Your task to perform on an android device: change your default location settings in chrome Image 0: 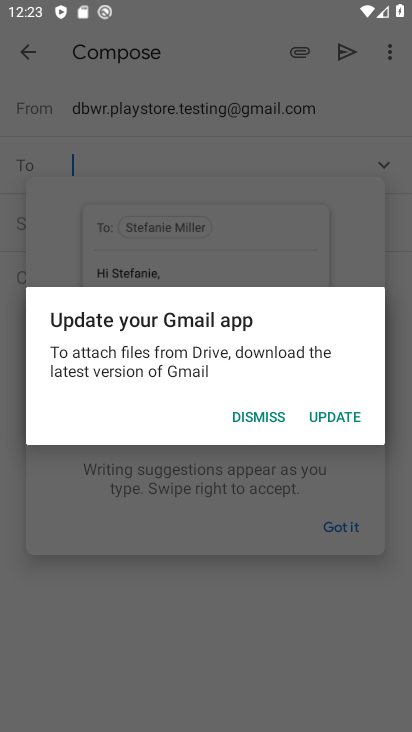
Step 0: press home button
Your task to perform on an android device: change your default location settings in chrome Image 1: 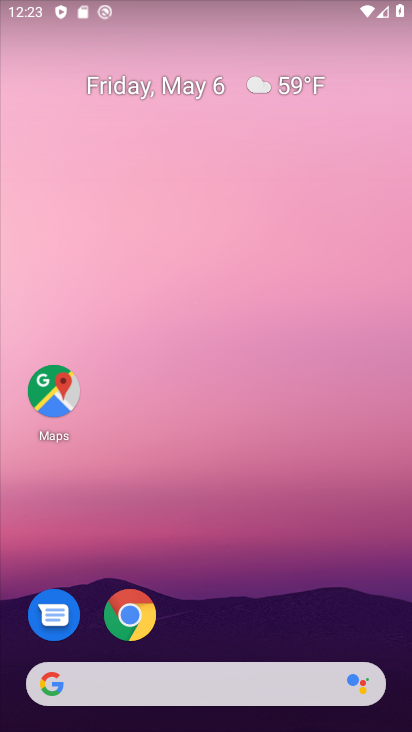
Step 1: drag from (257, 566) to (303, 31)
Your task to perform on an android device: change your default location settings in chrome Image 2: 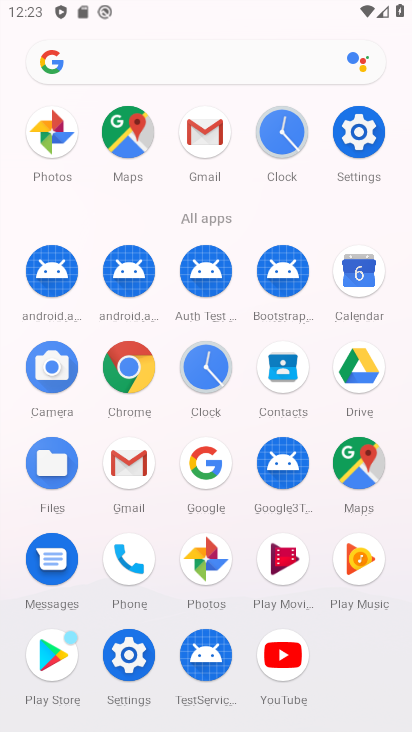
Step 2: click (145, 369)
Your task to perform on an android device: change your default location settings in chrome Image 3: 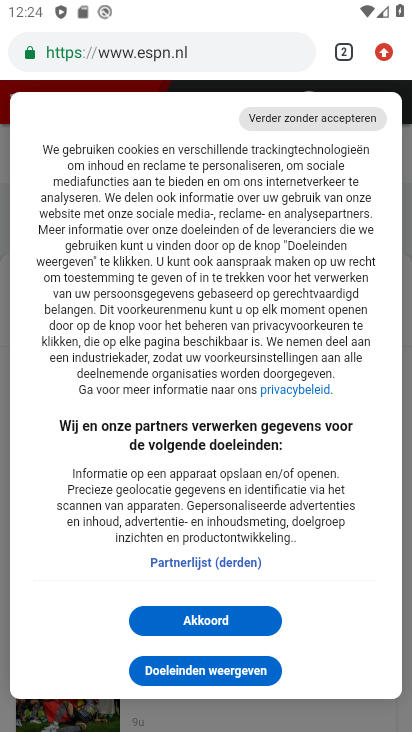
Step 3: click (239, 619)
Your task to perform on an android device: change your default location settings in chrome Image 4: 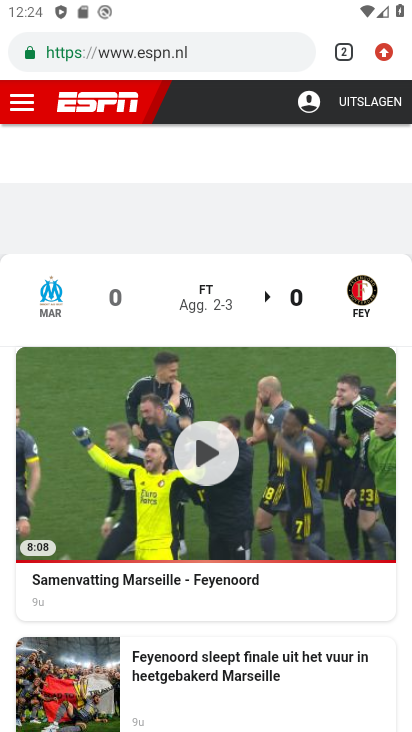
Step 4: press home button
Your task to perform on an android device: change your default location settings in chrome Image 5: 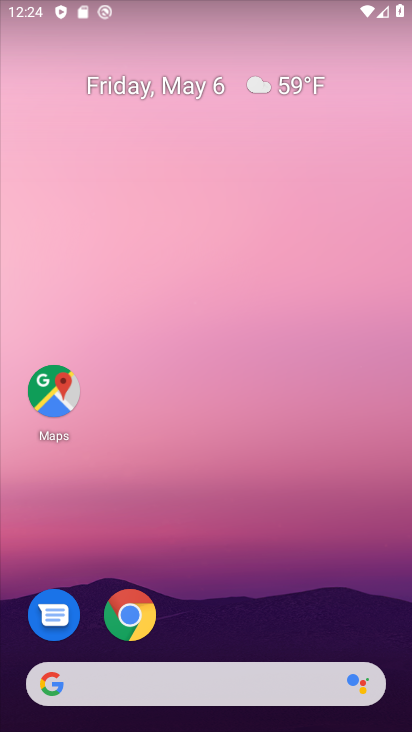
Step 5: drag from (230, 576) to (334, 44)
Your task to perform on an android device: change your default location settings in chrome Image 6: 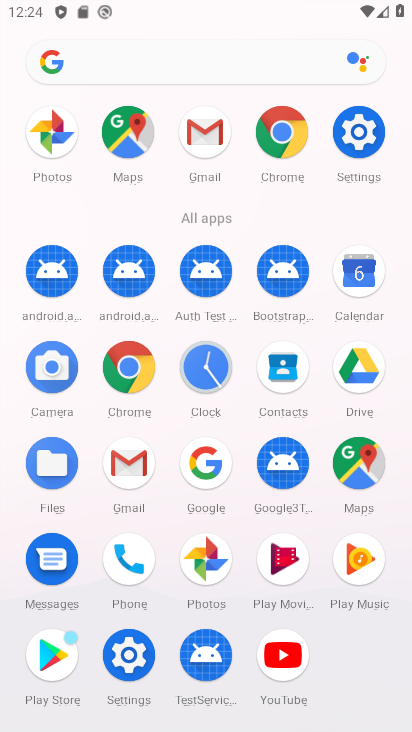
Step 6: click (289, 134)
Your task to perform on an android device: change your default location settings in chrome Image 7: 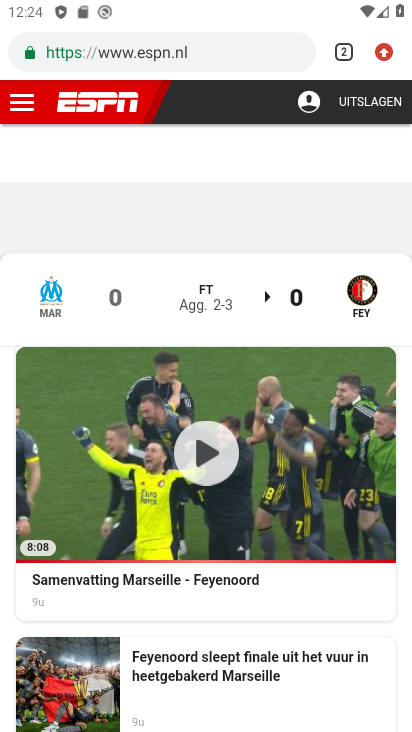
Step 7: click (386, 48)
Your task to perform on an android device: change your default location settings in chrome Image 8: 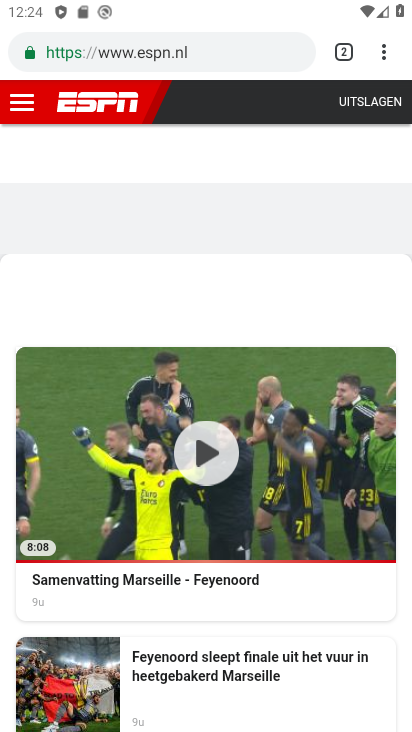
Step 8: drag from (381, 52) to (259, 641)
Your task to perform on an android device: change your default location settings in chrome Image 9: 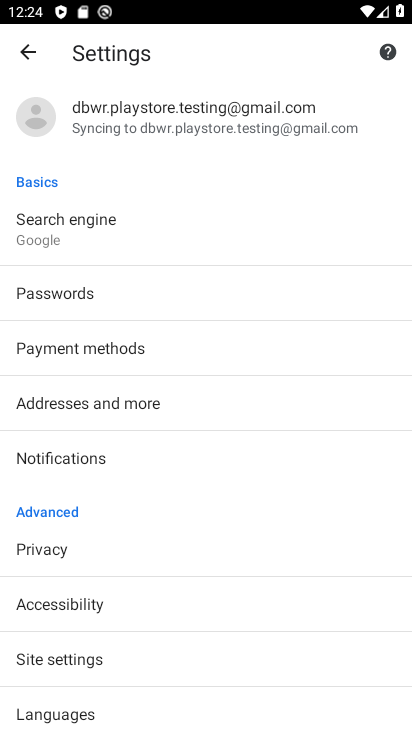
Step 9: click (260, 648)
Your task to perform on an android device: change your default location settings in chrome Image 10: 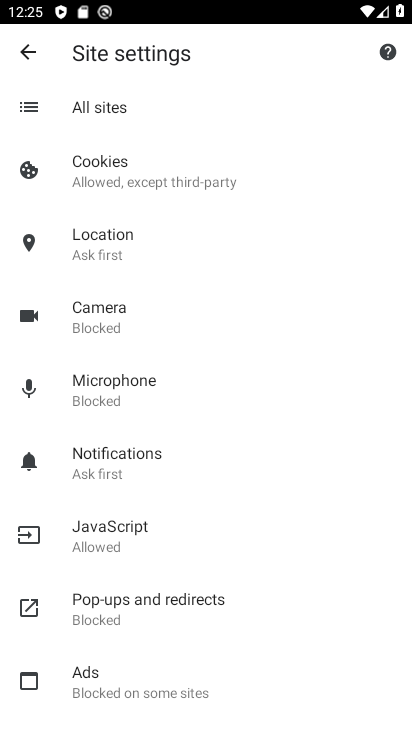
Step 10: click (176, 238)
Your task to perform on an android device: change your default location settings in chrome Image 11: 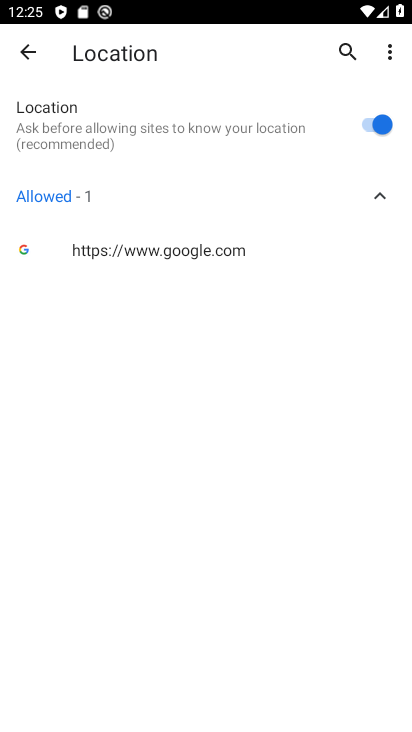
Step 11: click (368, 119)
Your task to perform on an android device: change your default location settings in chrome Image 12: 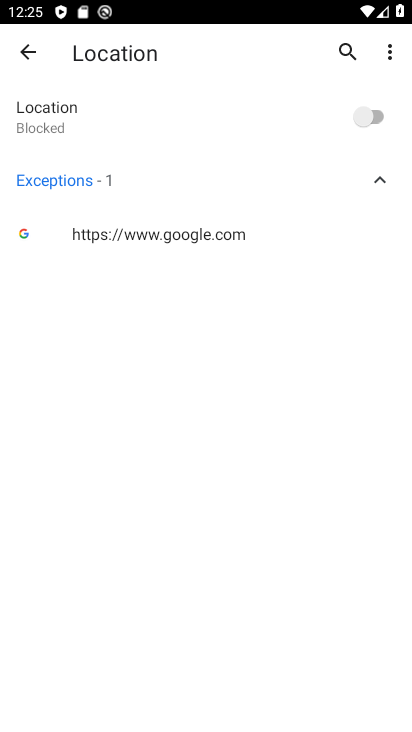
Step 12: task complete